Your task to perform on an android device: Go to Wikipedia Image 0: 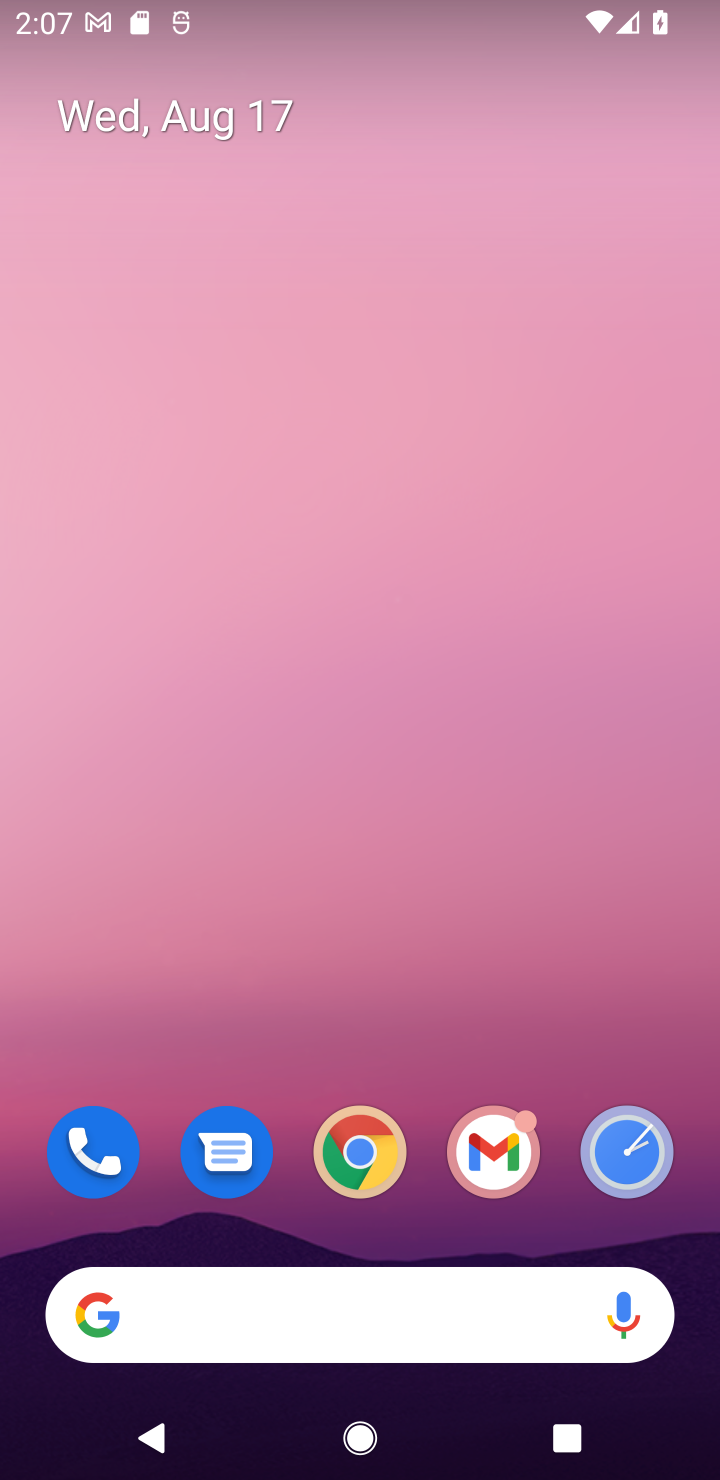
Step 0: drag from (569, 1233) to (356, 3)
Your task to perform on an android device: Go to Wikipedia Image 1: 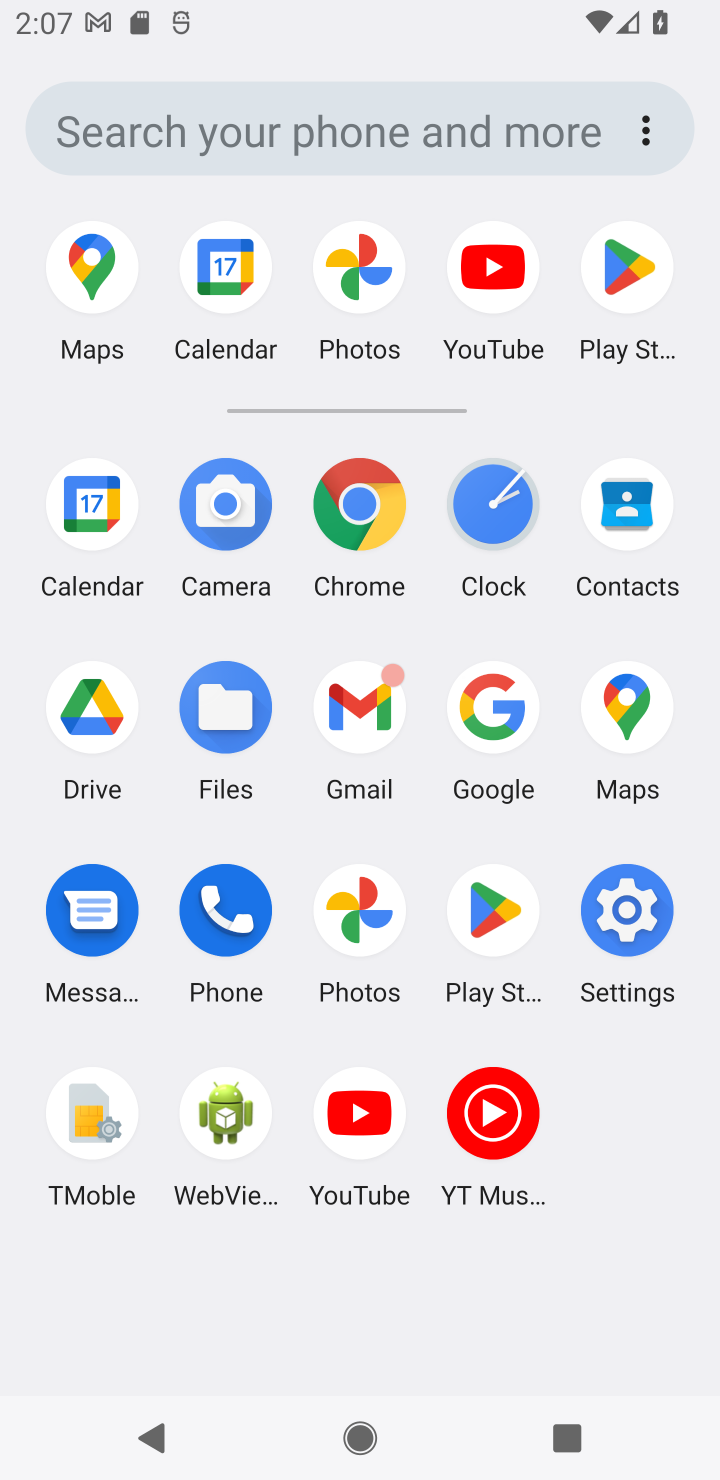
Step 1: click (537, 714)
Your task to perform on an android device: Go to Wikipedia Image 2: 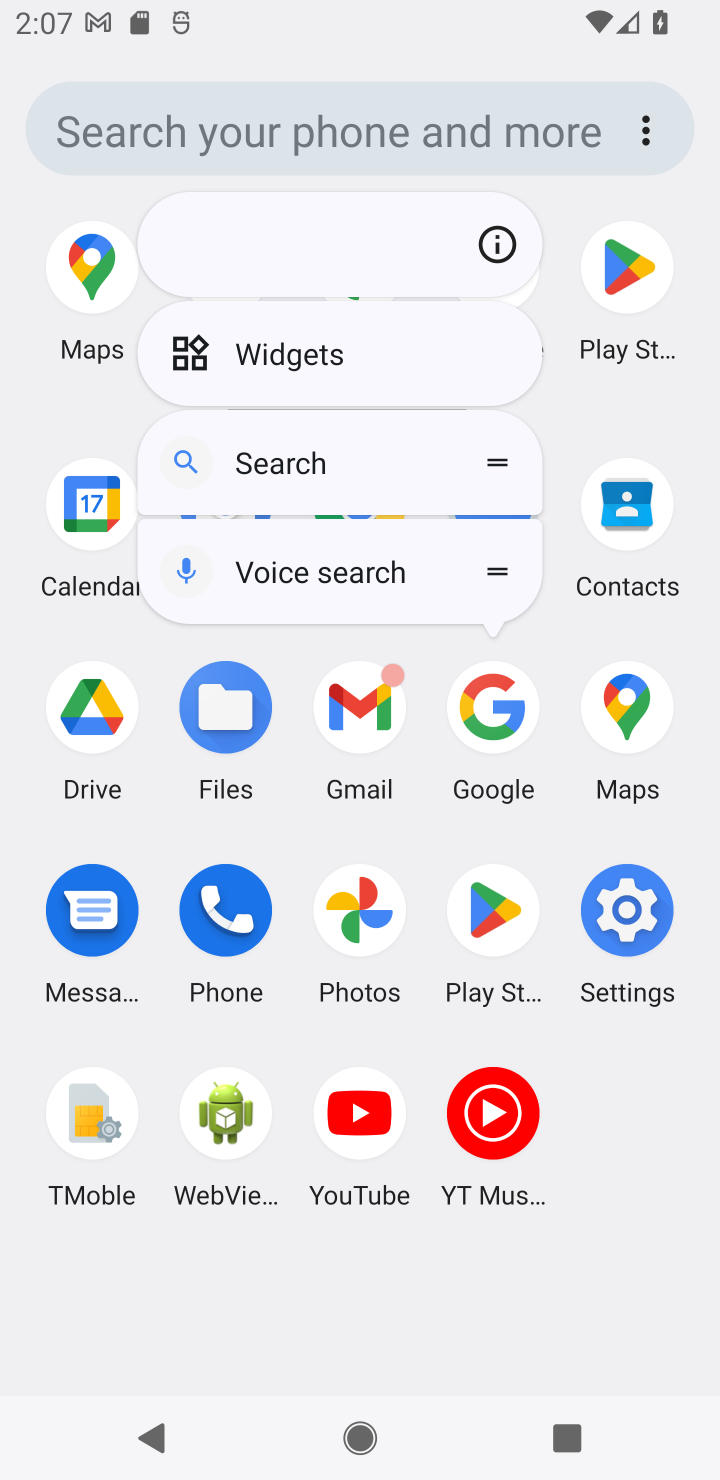
Step 2: click (466, 702)
Your task to perform on an android device: Go to Wikipedia Image 3: 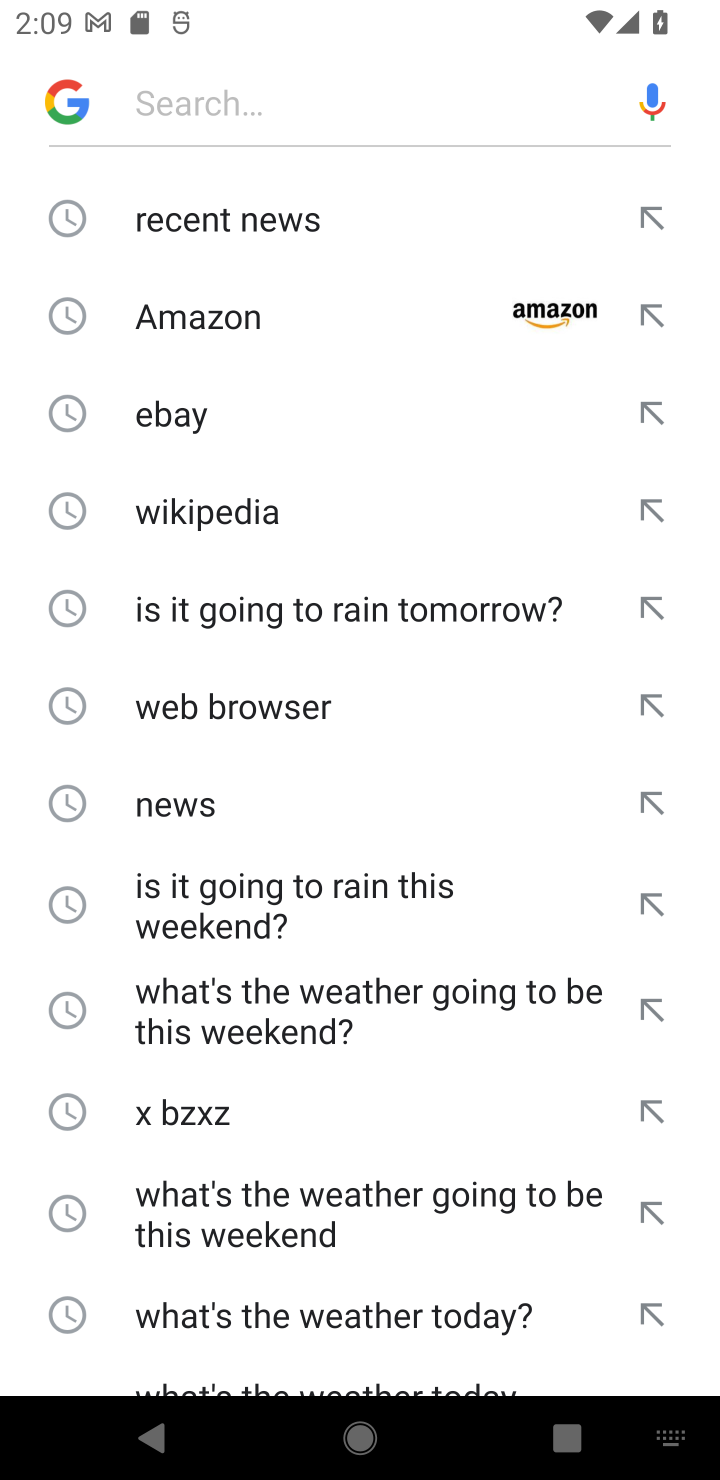
Step 3: click (272, 529)
Your task to perform on an android device: Go to Wikipedia Image 4: 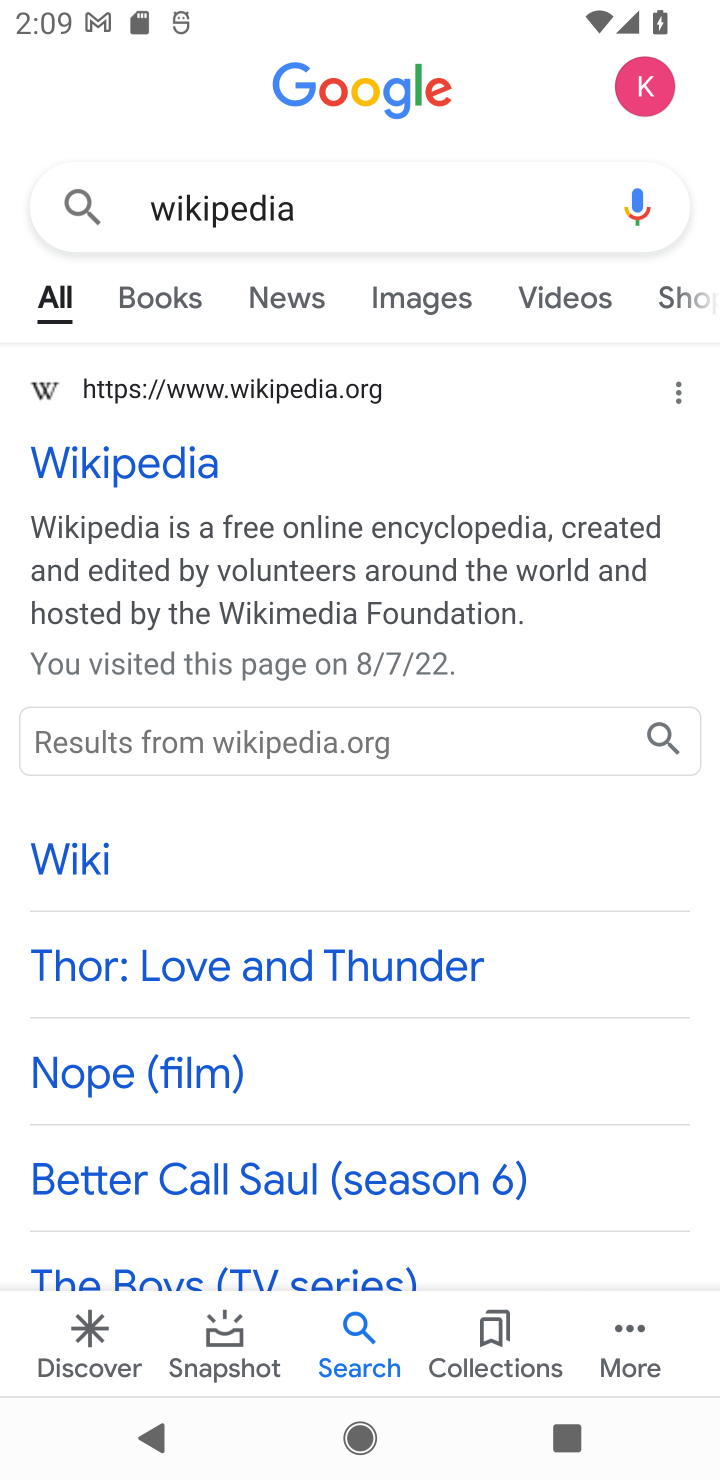
Step 4: task complete